Your task to perform on an android device: Check the news Image 0: 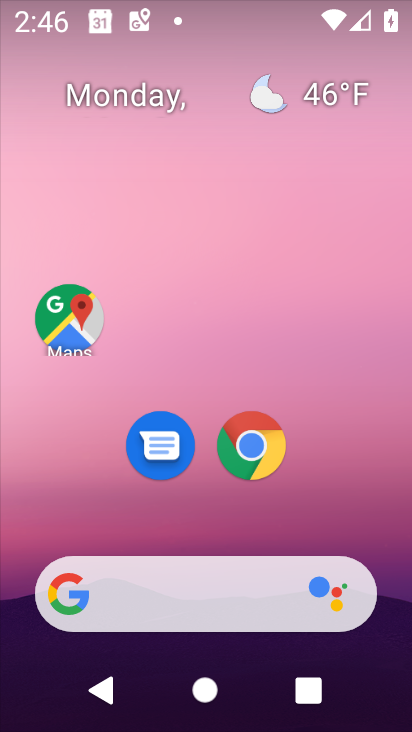
Step 0: drag from (77, 490) to (362, 515)
Your task to perform on an android device: Check the news Image 1: 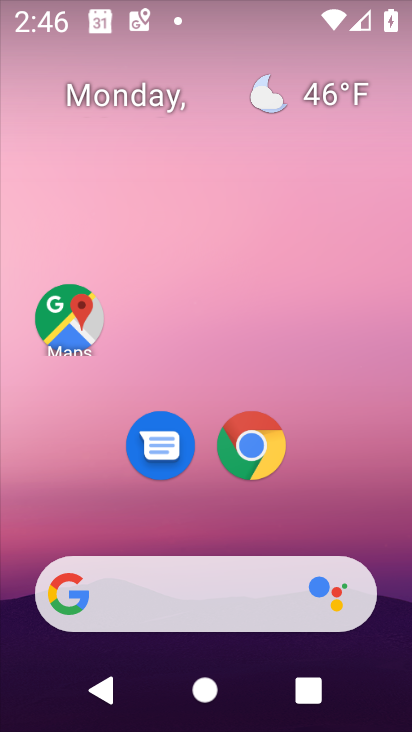
Step 1: drag from (74, 505) to (401, 574)
Your task to perform on an android device: Check the news Image 2: 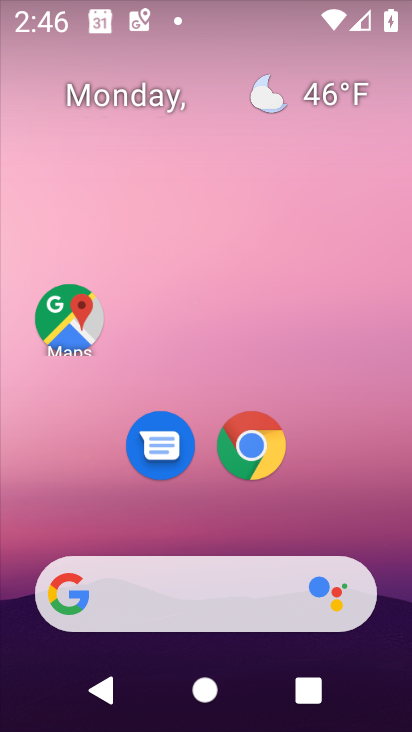
Step 2: drag from (90, 408) to (405, 392)
Your task to perform on an android device: Check the news Image 3: 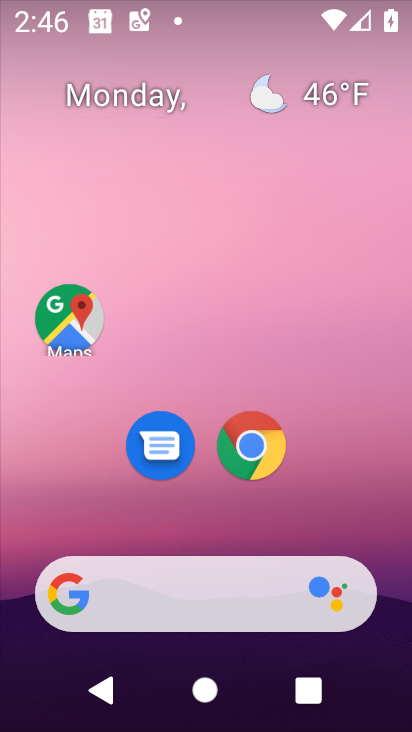
Step 3: drag from (89, 231) to (325, 249)
Your task to perform on an android device: Check the news Image 4: 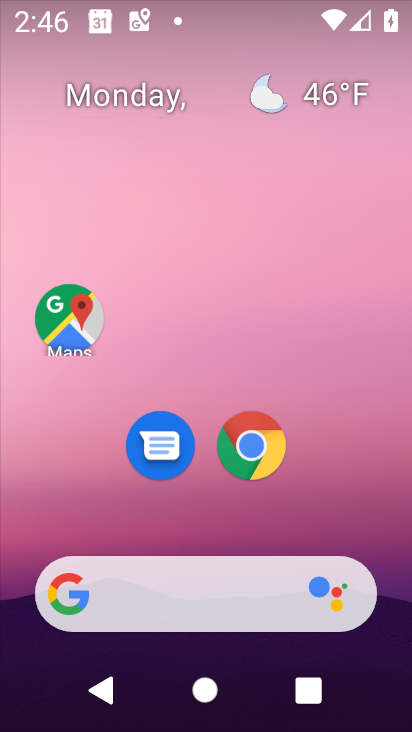
Step 4: drag from (52, 526) to (403, 529)
Your task to perform on an android device: Check the news Image 5: 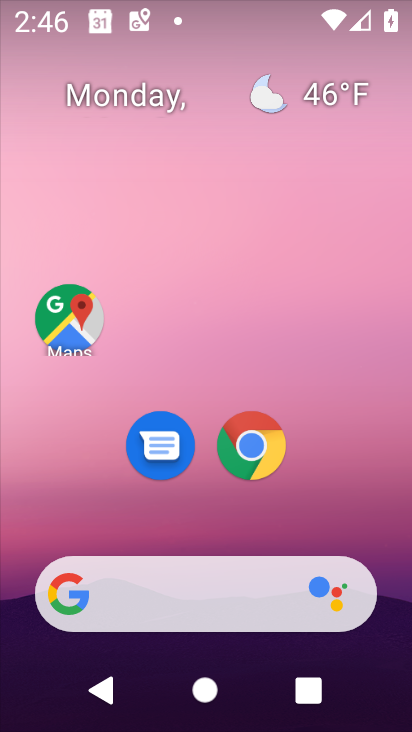
Step 5: click (252, 460)
Your task to perform on an android device: Check the news Image 6: 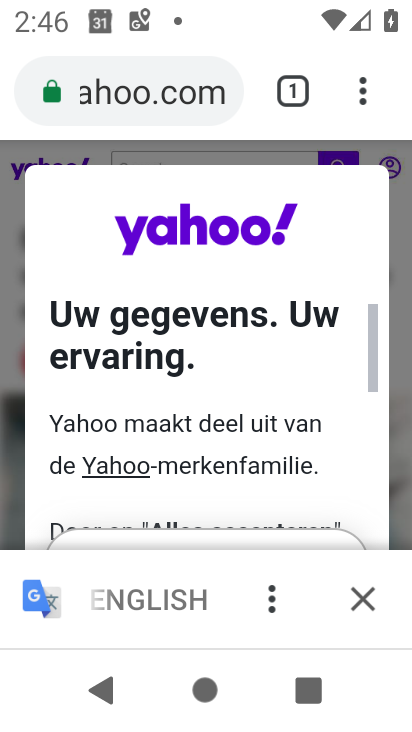
Step 6: click (128, 98)
Your task to perform on an android device: Check the news Image 7: 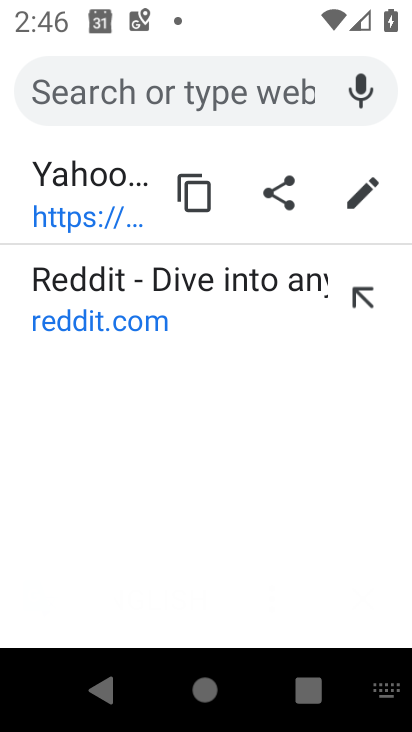
Step 7: type "news"
Your task to perform on an android device: Check the news Image 8: 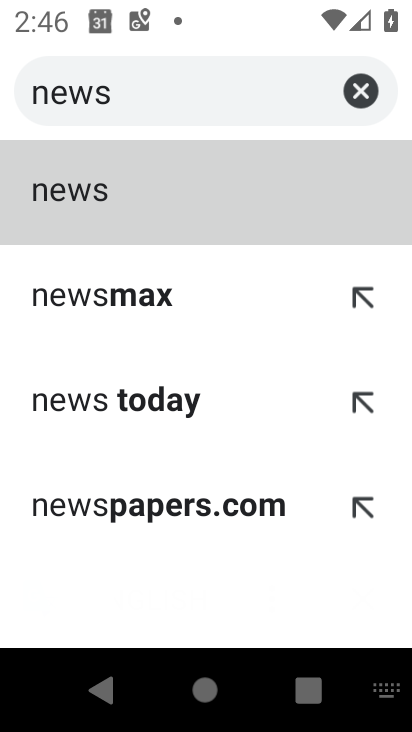
Step 8: click (122, 192)
Your task to perform on an android device: Check the news Image 9: 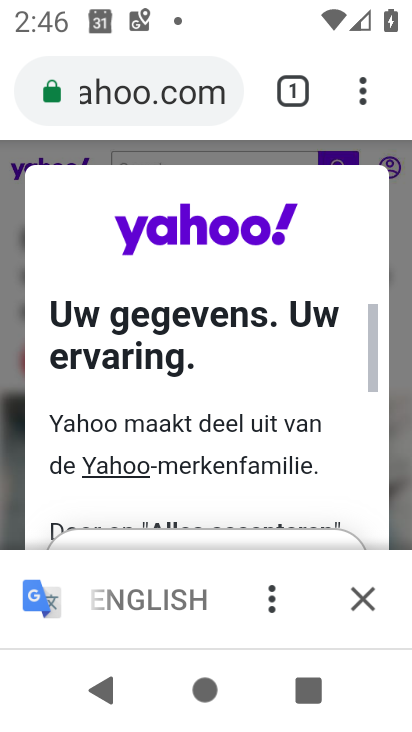
Step 9: task complete